Your task to perform on an android device: refresh tabs in the chrome app Image 0: 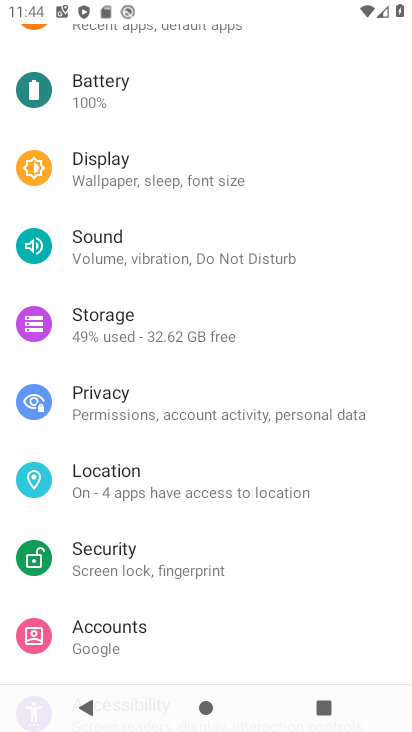
Step 0: press home button
Your task to perform on an android device: refresh tabs in the chrome app Image 1: 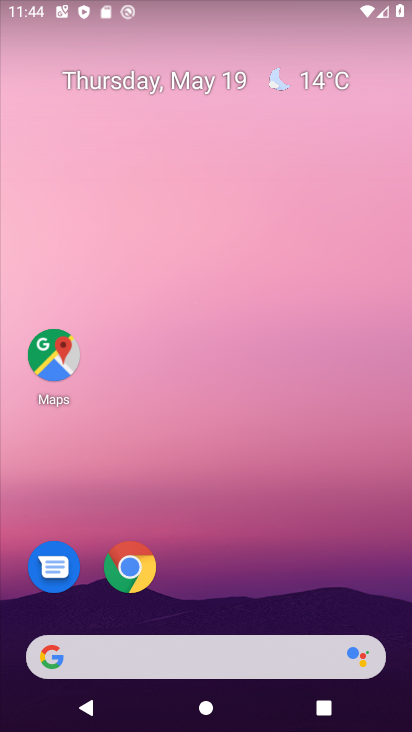
Step 1: click (155, 574)
Your task to perform on an android device: refresh tabs in the chrome app Image 2: 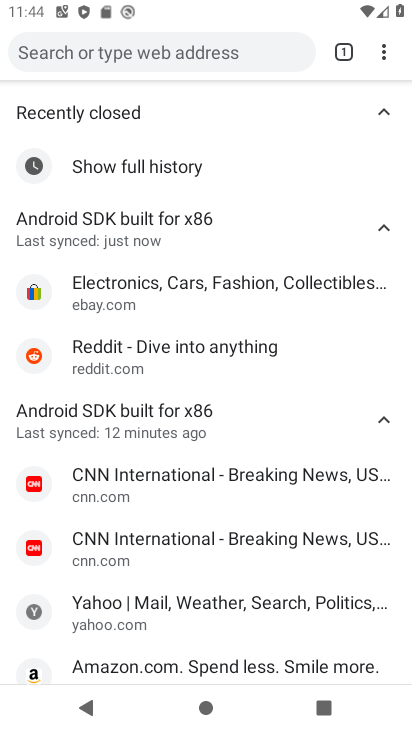
Step 2: click (385, 55)
Your task to perform on an android device: refresh tabs in the chrome app Image 3: 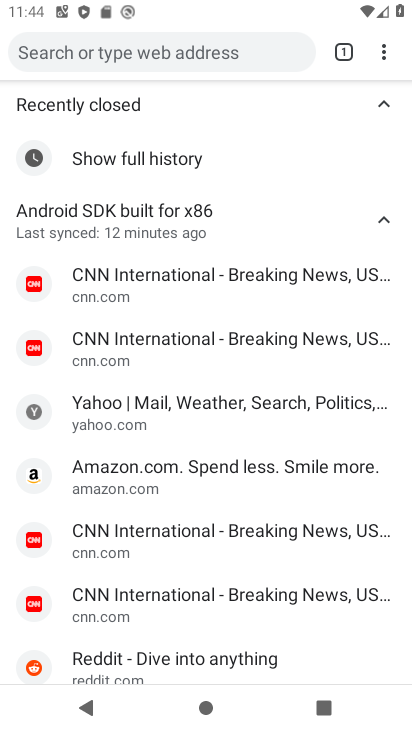
Step 3: task complete